Your task to perform on an android device: Open Google Maps Image 0: 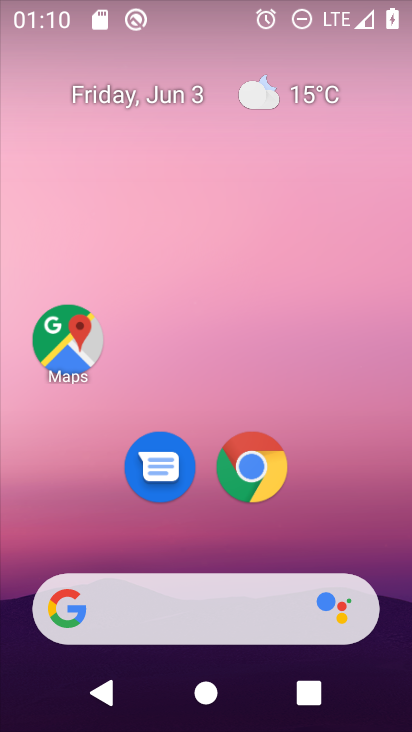
Step 0: click (69, 344)
Your task to perform on an android device: Open Google Maps Image 1: 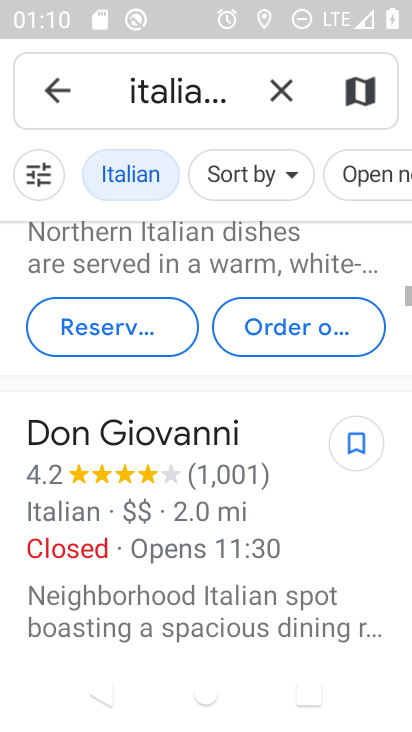
Step 1: click (279, 81)
Your task to perform on an android device: Open Google Maps Image 2: 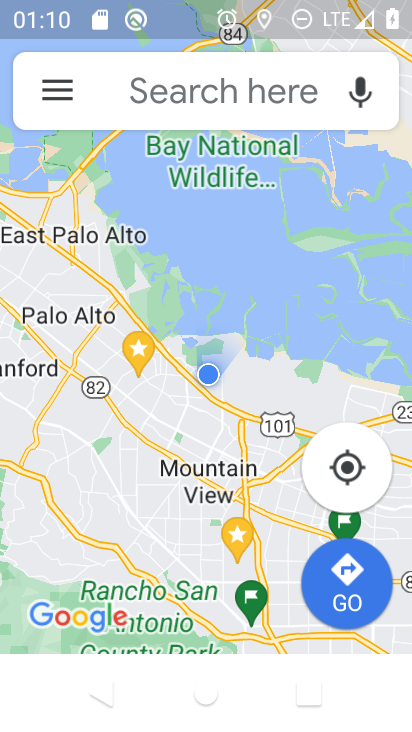
Step 2: task complete